Your task to perform on an android device: set the stopwatch Image 0: 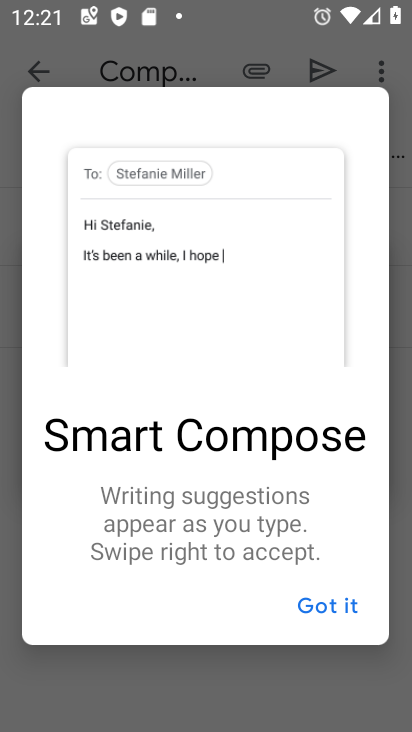
Step 0: press home button
Your task to perform on an android device: set the stopwatch Image 1: 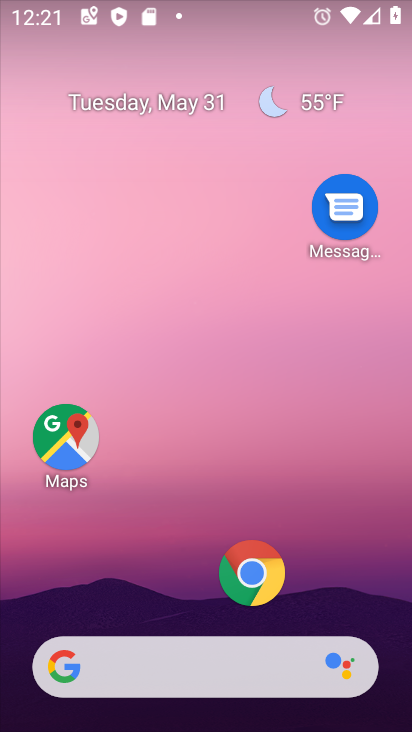
Step 1: drag from (180, 261) to (187, 95)
Your task to perform on an android device: set the stopwatch Image 2: 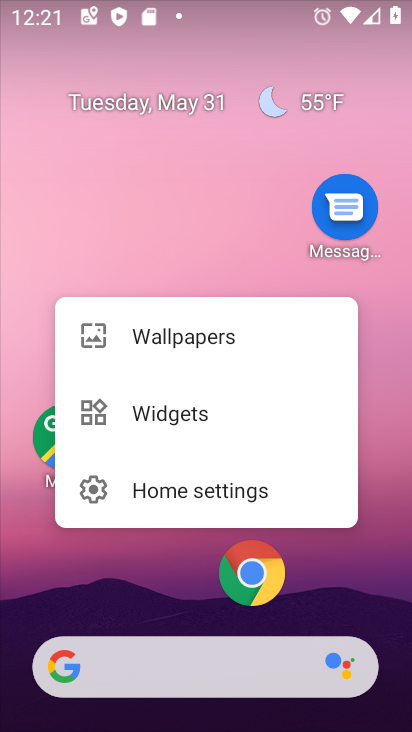
Step 2: drag from (187, 561) to (189, 71)
Your task to perform on an android device: set the stopwatch Image 3: 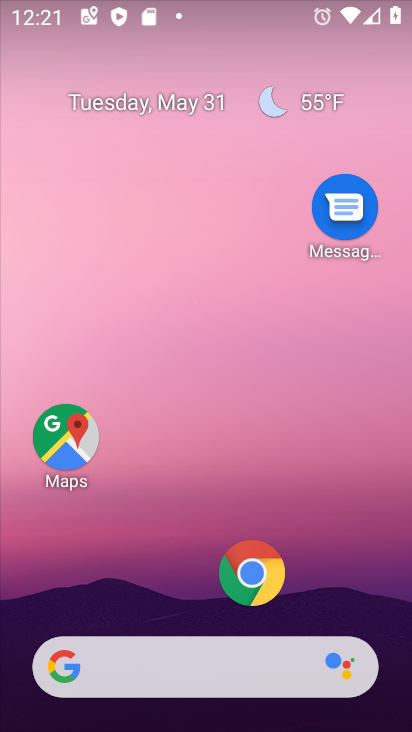
Step 3: drag from (181, 466) to (179, 89)
Your task to perform on an android device: set the stopwatch Image 4: 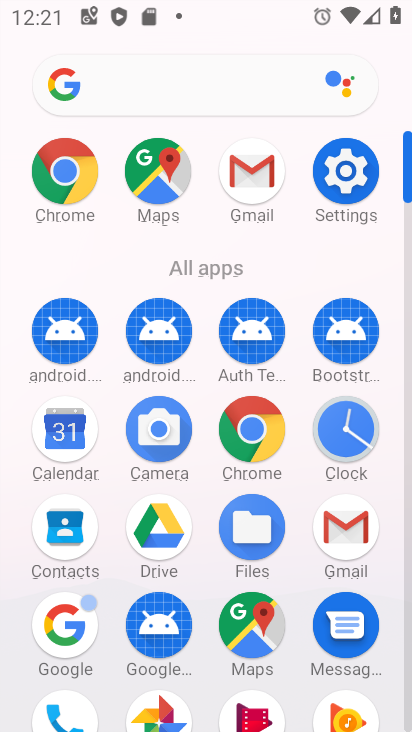
Step 4: click (343, 438)
Your task to perform on an android device: set the stopwatch Image 5: 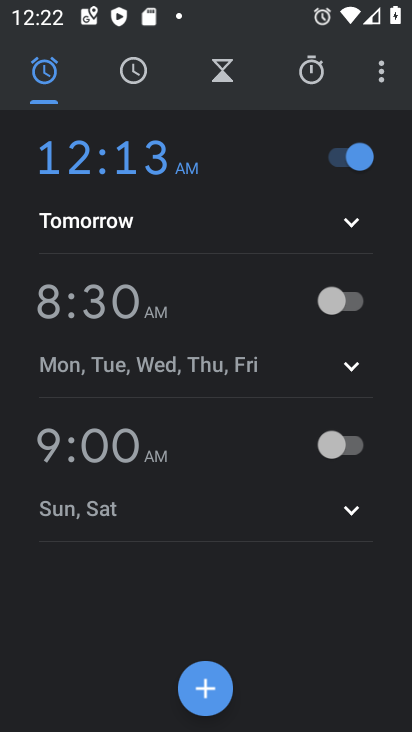
Step 5: click (305, 71)
Your task to perform on an android device: set the stopwatch Image 6: 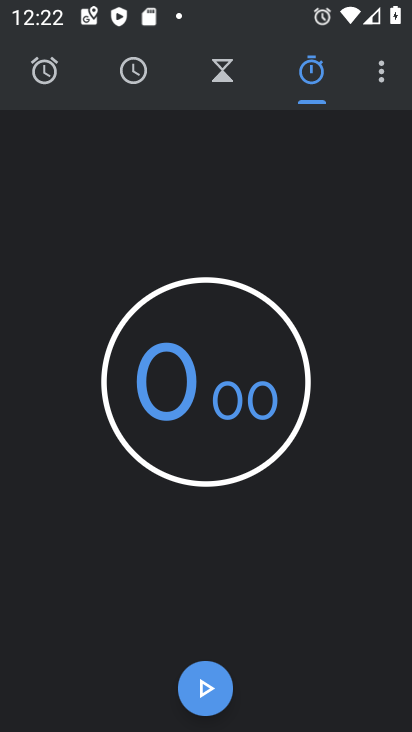
Step 6: click (211, 695)
Your task to perform on an android device: set the stopwatch Image 7: 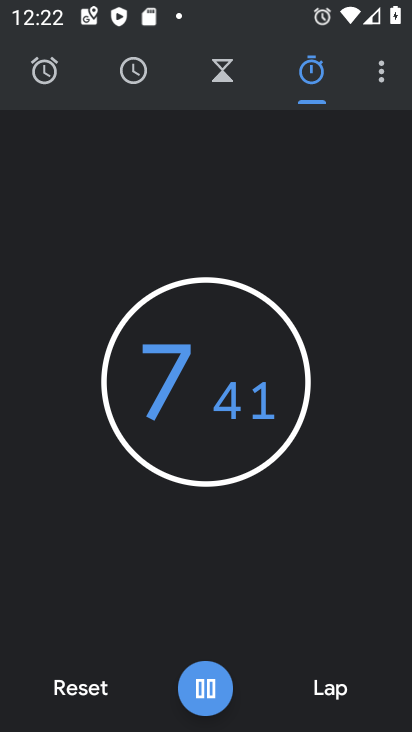
Step 7: task complete